Your task to perform on an android device: turn off data saver in the chrome app Image 0: 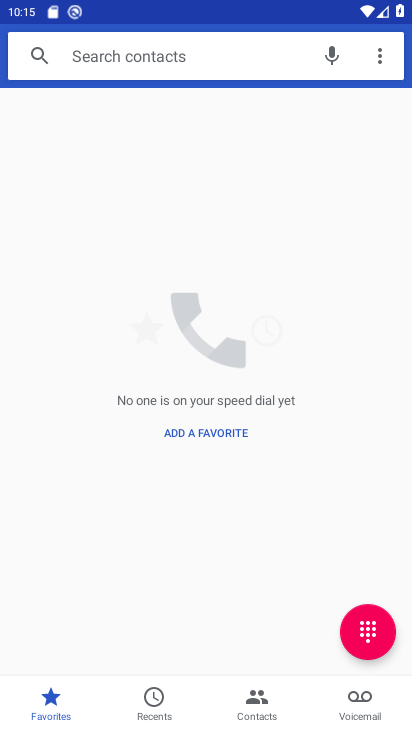
Step 0: press home button
Your task to perform on an android device: turn off data saver in the chrome app Image 1: 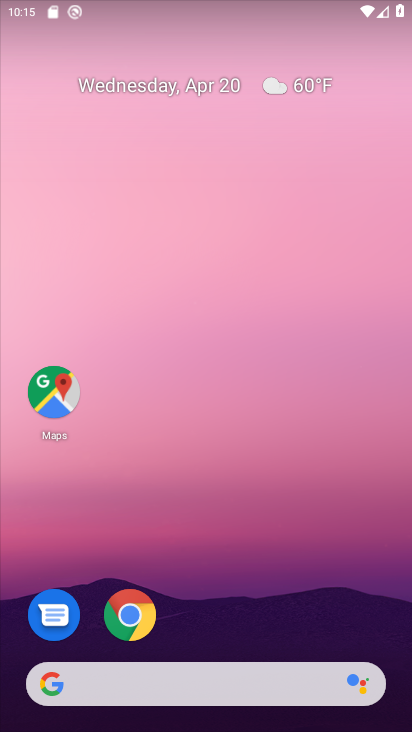
Step 1: drag from (372, 629) to (375, 185)
Your task to perform on an android device: turn off data saver in the chrome app Image 2: 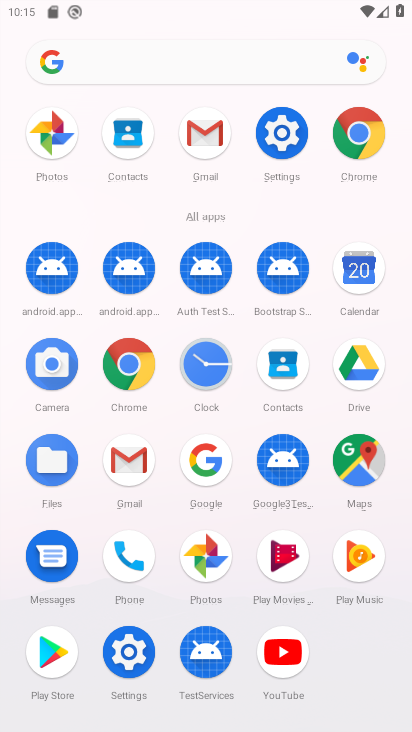
Step 2: click (129, 382)
Your task to perform on an android device: turn off data saver in the chrome app Image 3: 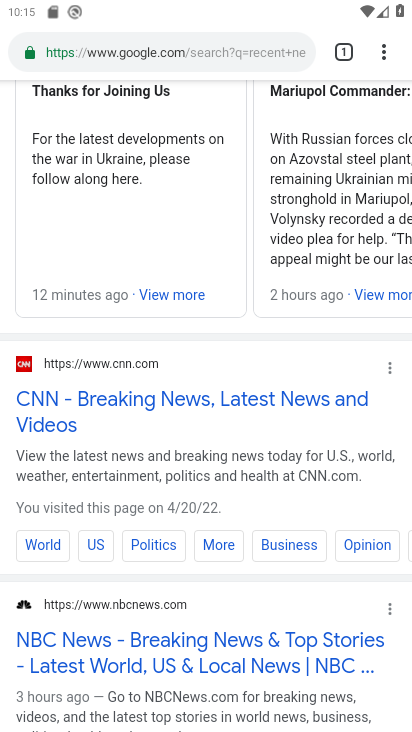
Step 3: drag from (380, 61) to (206, 586)
Your task to perform on an android device: turn off data saver in the chrome app Image 4: 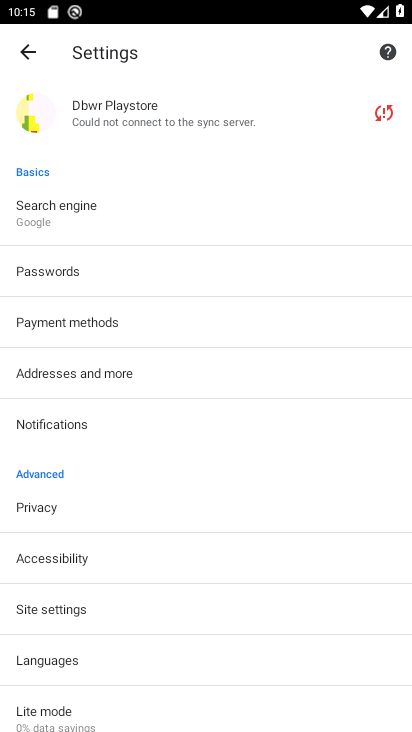
Step 4: drag from (256, 659) to (268, 229)
Your task to perform on an android device: turn off data saver in the chrome app Image 5: 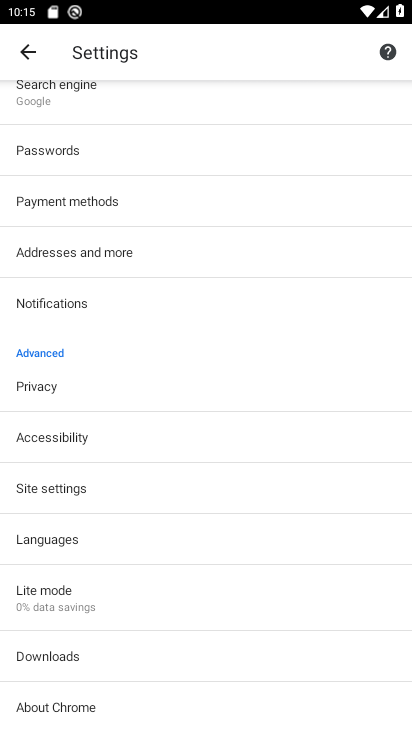
Step 5: click (52, 583)
Your task to perform on an android device: turn off data saver in the chrome app Image 6: 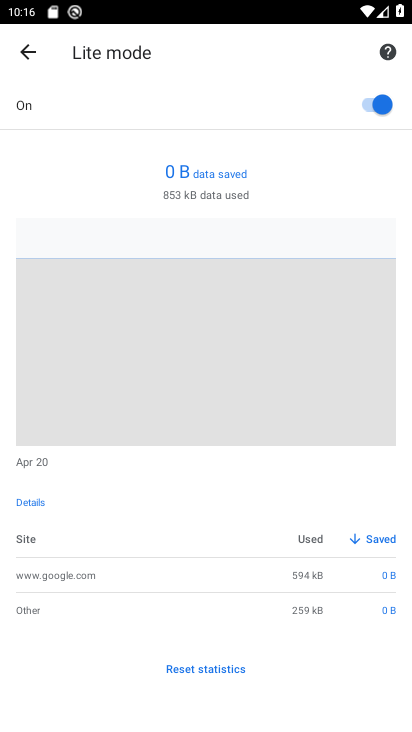
Step 6: click (366, 106)
Your task to perform on an android device: turn off data saver in the chrome app Image 7: 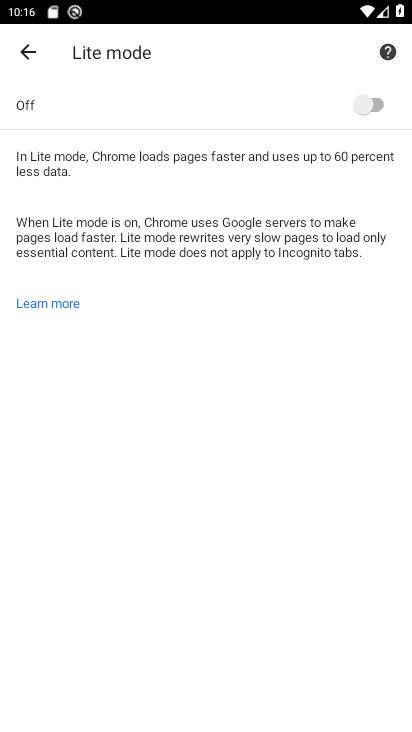
Step 7: task complete